Your task to perform on an android device: Toggle the flashlight Image 0: 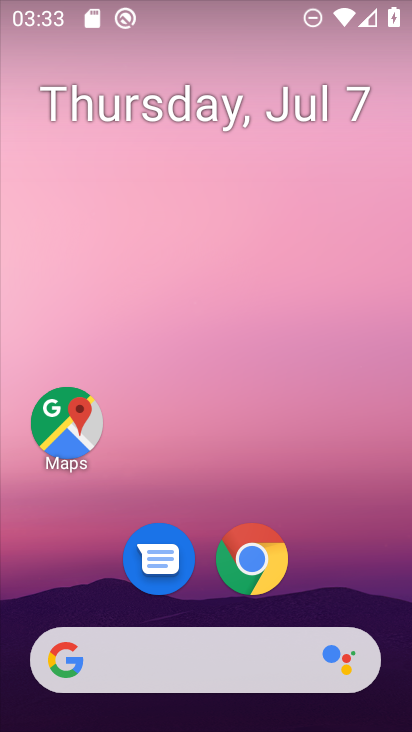
Step 0: drag from (260, 12) to (261, 460)
Your task to perform on an android device: Toggle the flashlight Image 1: 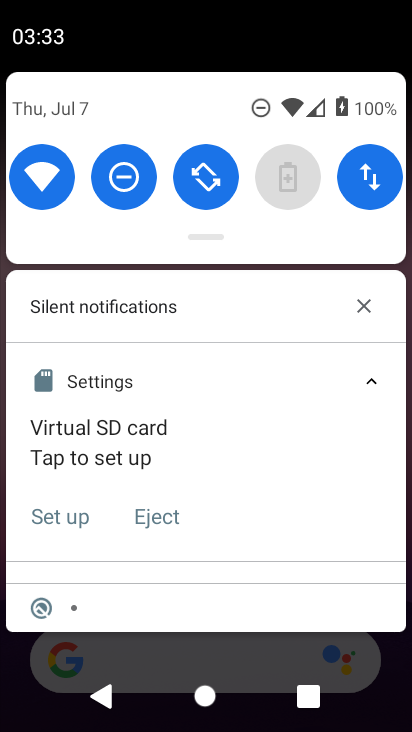
Step 1: drag from (239, 129) to (229, 459)
Your task to perform on an android device: Toggle the flashlight Image 2: 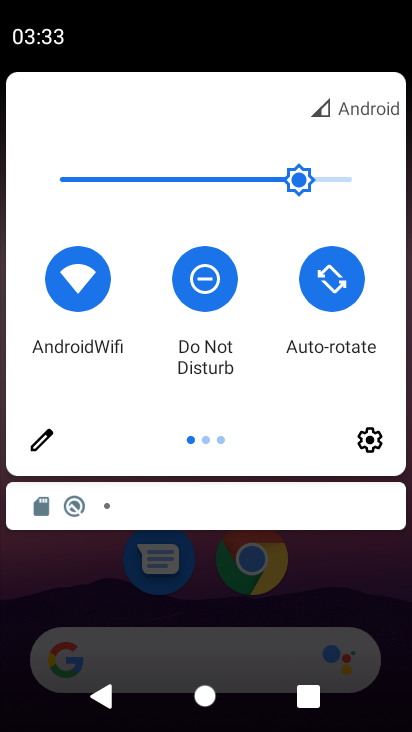
Step 2: click (65, 444)
Your task to perform on an android device: Toggle the flashlight Image 3: 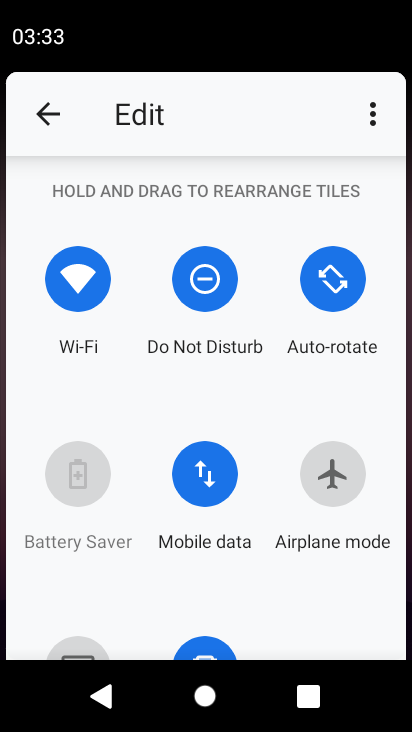
Step 3: task complete